Your task to perform on an android device: snooze an email in the gmail app Image 0: 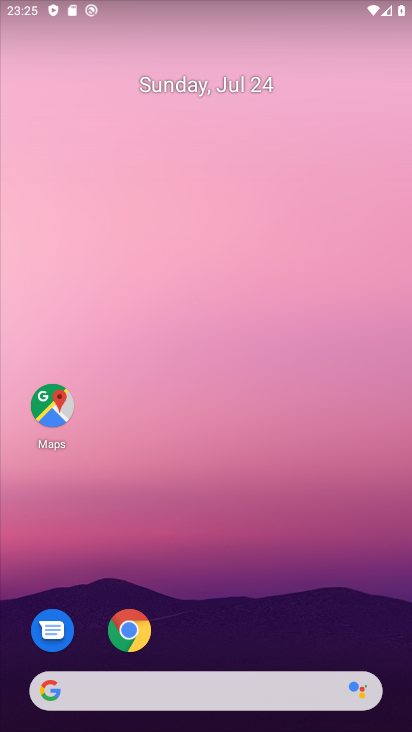
Step 0: drag from (217, 631) to (214, 172)
Your task to perform on an android device: snooze an email in the gmail app Image 1: 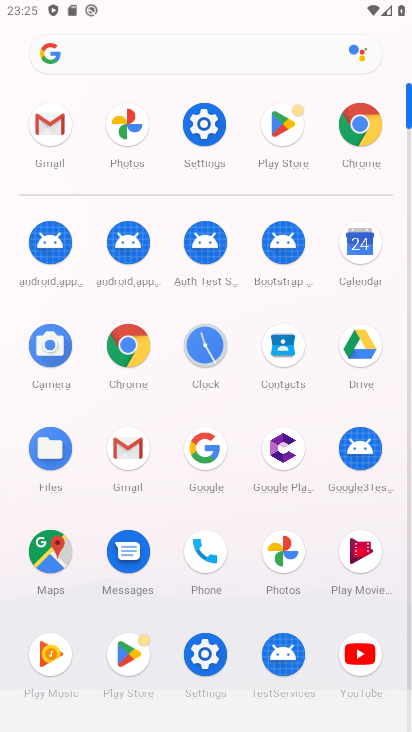
Step 1: click (126, 452)
Your task to perform on an android device: snooze an email in the gmail app Image 2: 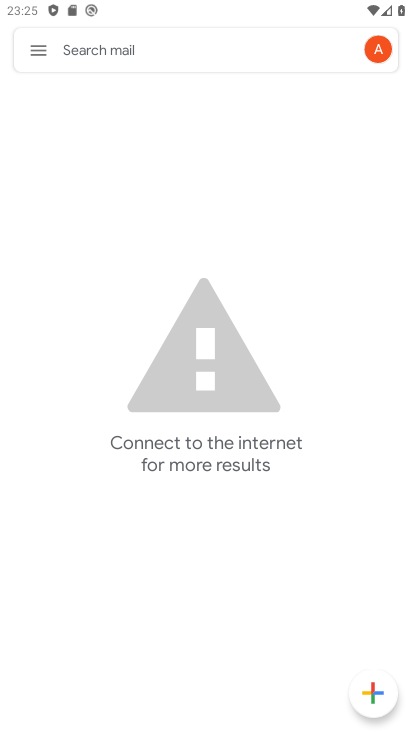
Step 2: click (27, 51)
Your task to perform on an android device: snooze an email in the gmail app Image 3: 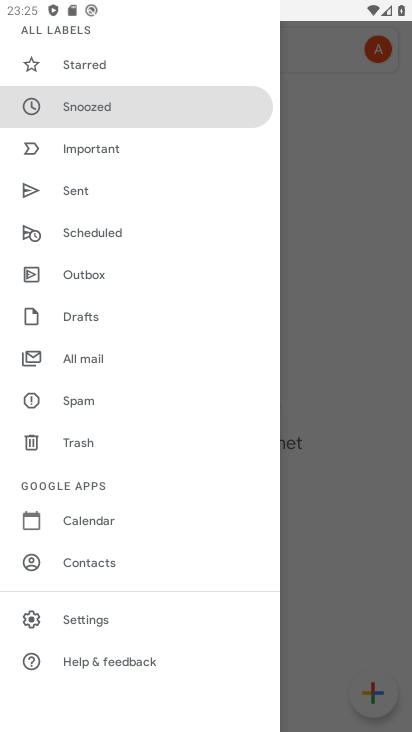
Step 3: click (70, 353)
Your task to perform on an android device: snooze an email in the gmail app Image 4: 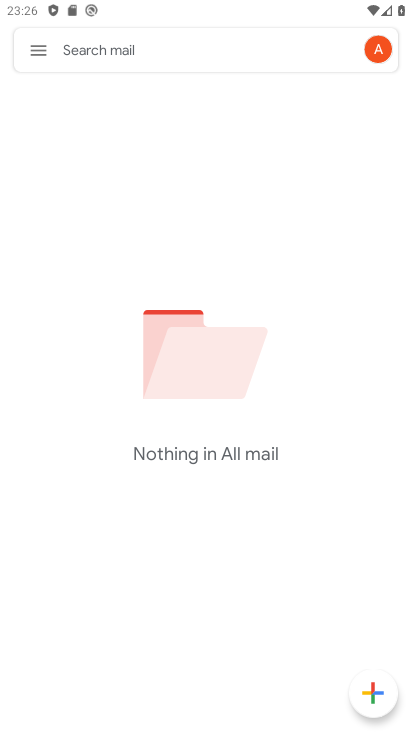
Step 4: task complete